Your task to perform on an android device: Open display settings Image 0: 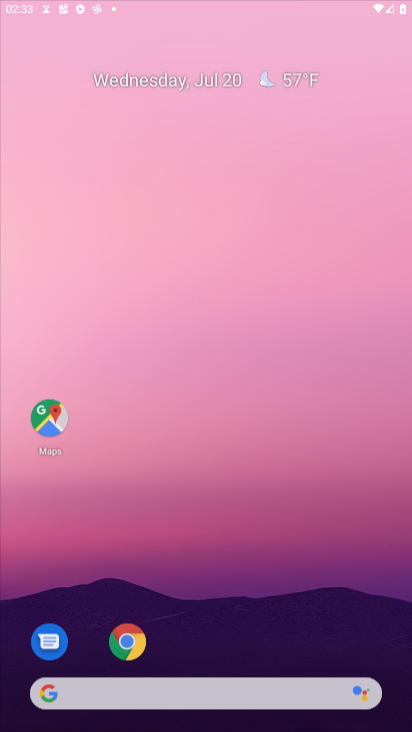
Step 0: press home button
Your task to perform on an android device: Open display settings Image 1: 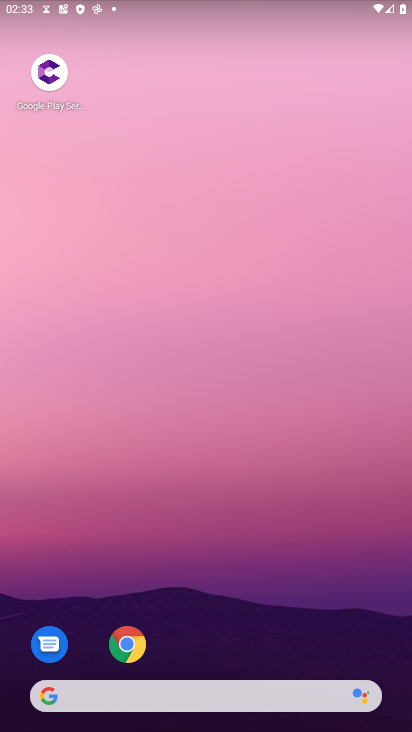
Step 1: drag from (245, 522) to (257, 95)
Your task to perform on an android device: Open display settings Image 2: 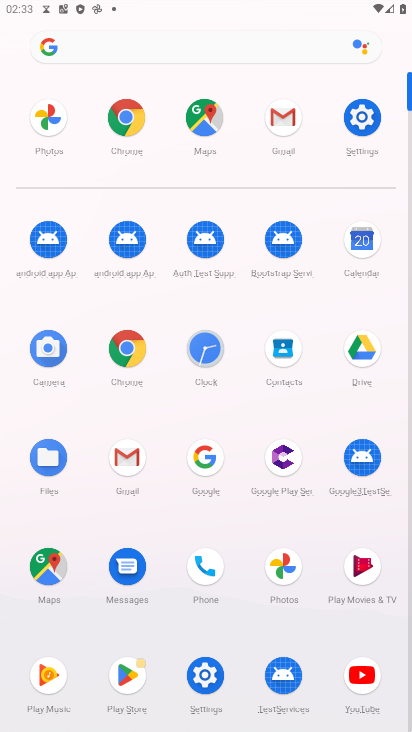
Step 2: click (368, 127)
Your task to perform on an android device: Open display settings Image 3: 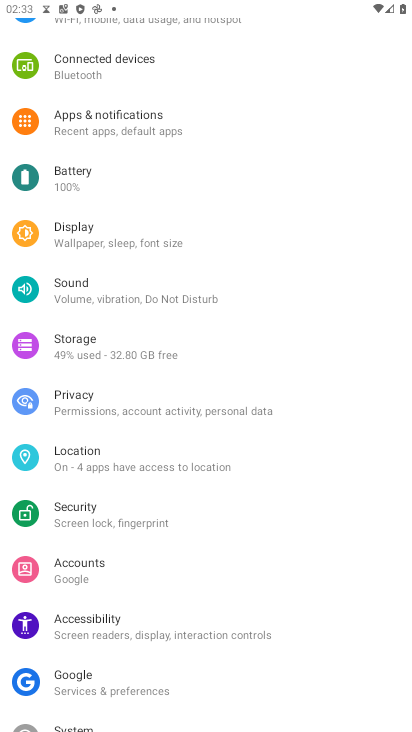
Step 3: click (74, 232)
Your task to perform on an android device: Open display settings Image 4: 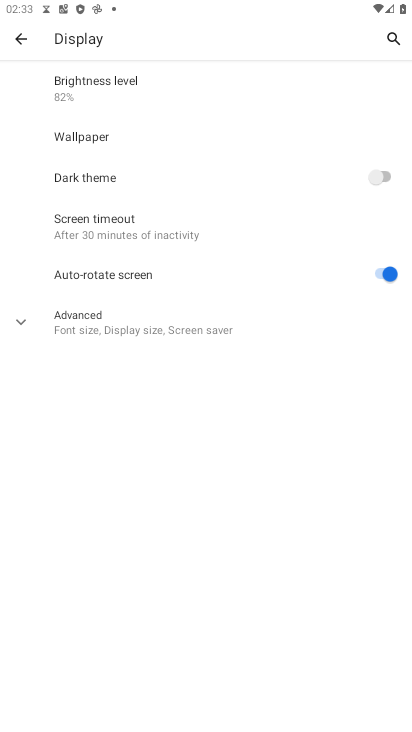
Step 4: task complete